Your task to perform on an android device: Open accessibility settings Image 0: 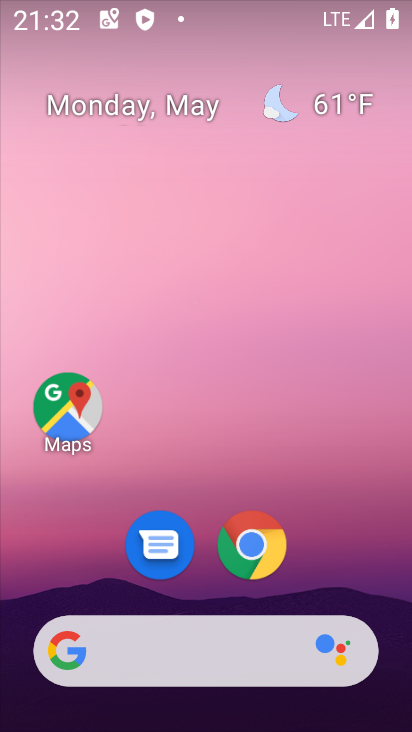
Step 0: drag from (168, 587) to (44, 8)
Your task to perform on an android device: Open accessibility settings Image 1: 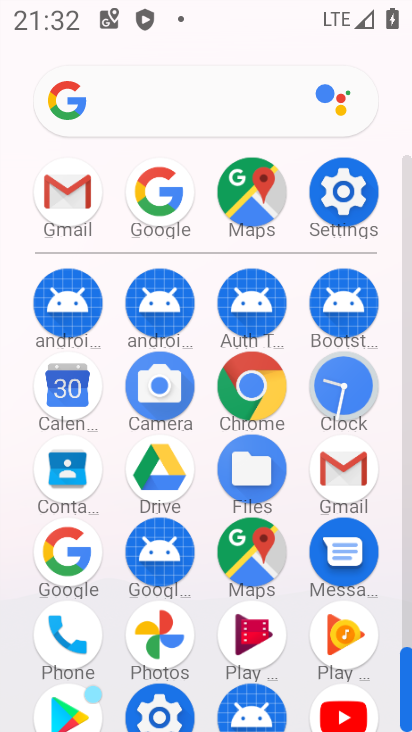
Step 1: click (367, 194)
Your task to perform on an android device: Open accessibility settings Image 2: 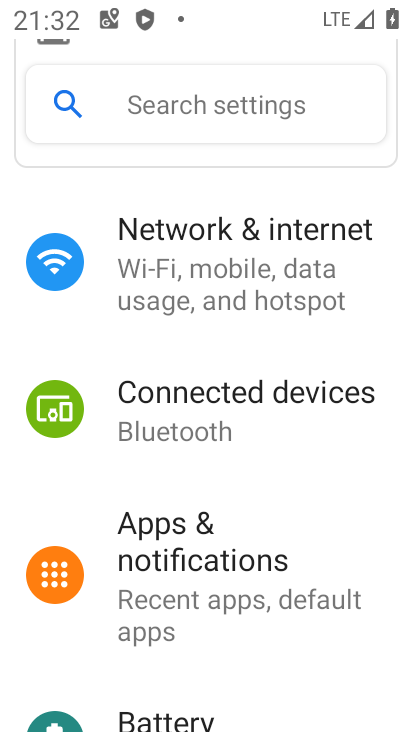
Step 2: drag from (210, 533) to (295, 72)
Your task to perform on an android device: Open accessibility settings Image 3: 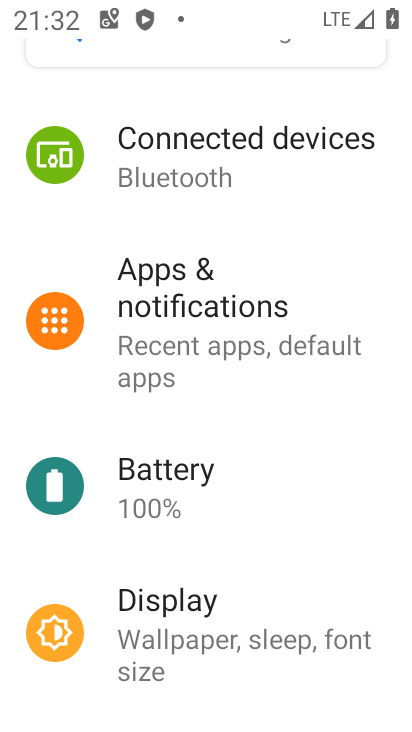
Step 3: drag from (328, 633) to (270, 4)
Your task to perform on an android device: Open accessibility settings Image 4: 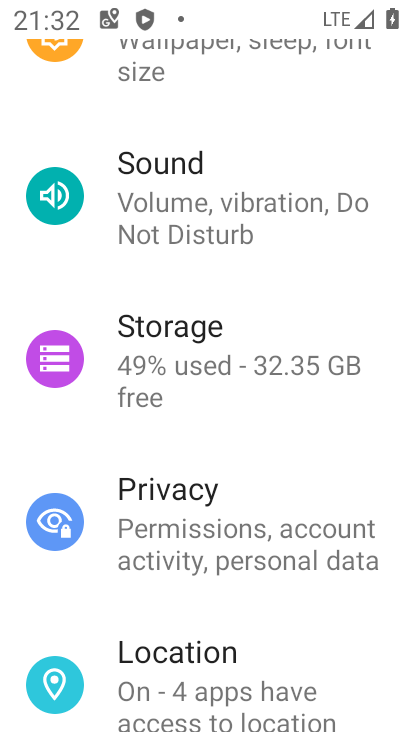
Step 4: drag from (297, 610) to (286, 20)
Your task to perform on an android device: Open accessibility settings Image 5: 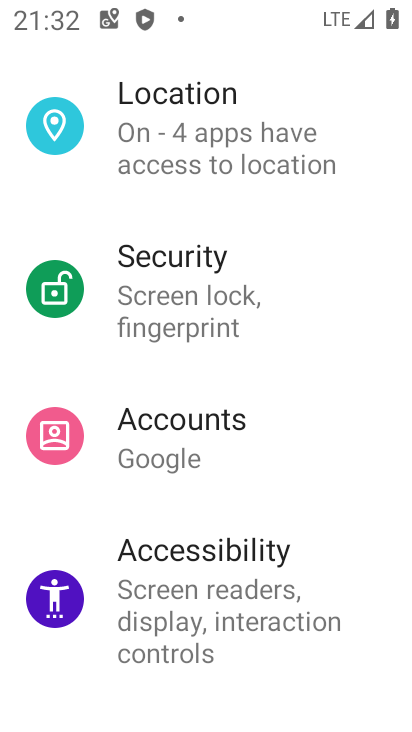
Step 5: click (205, 541)
Your task to perform on an android device: Open accessibility settings Image 6: 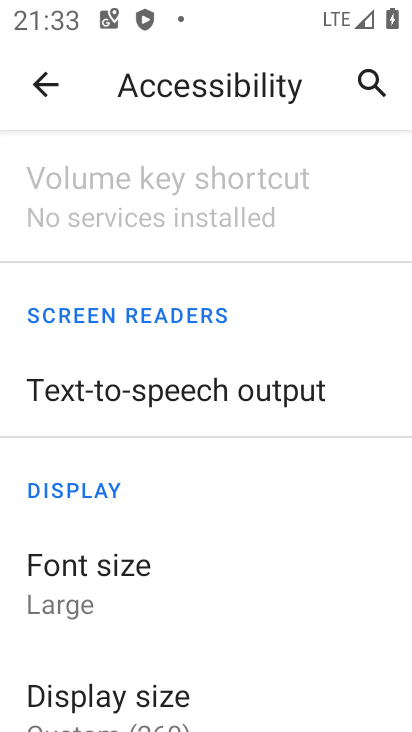
Step 6: task complete